Your task to perform on an android device: turn notification dots off Image 0: 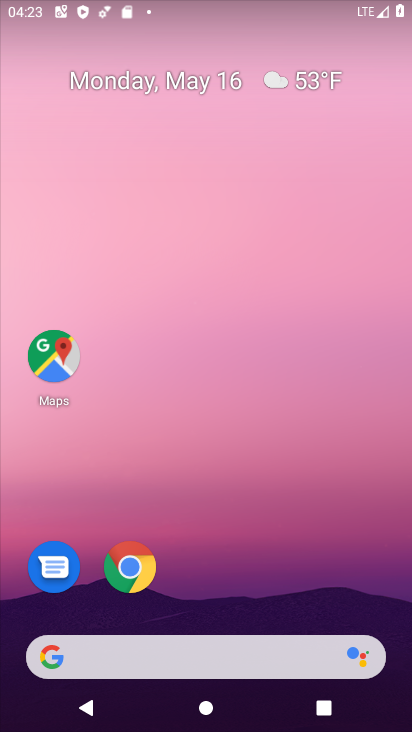
Step 0: drag from (203, 640) to (219, 23)
Your task to perform on an android device: turn notification dots off Image 1: 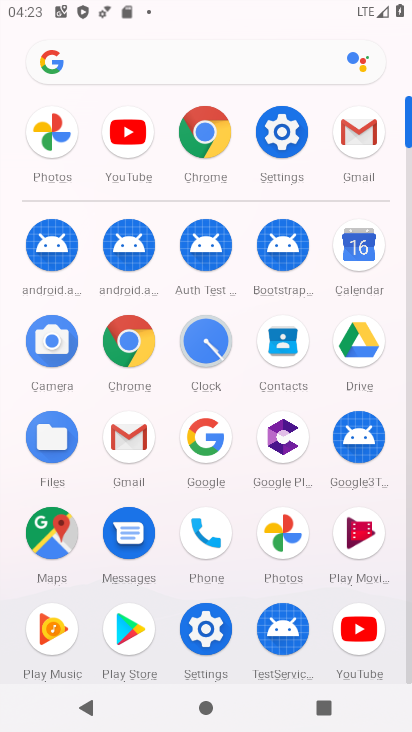
Step 1: click (306, 139)
Your task to perform on an android device: turn notification dots off Image 2: 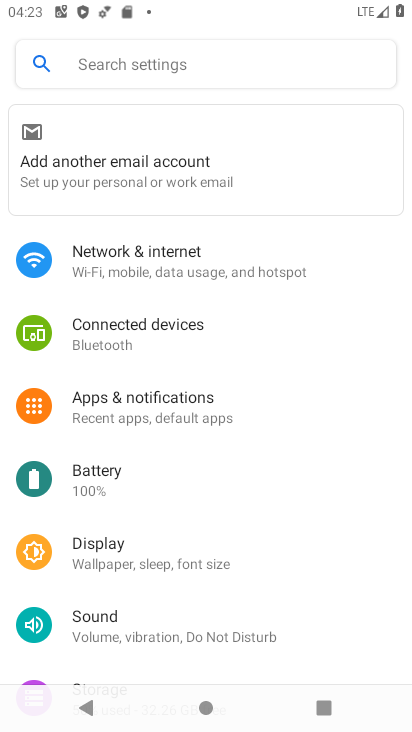
Step 2: click (184, 408)
Your task to perform on an android device: turn notification dots off Image 3: 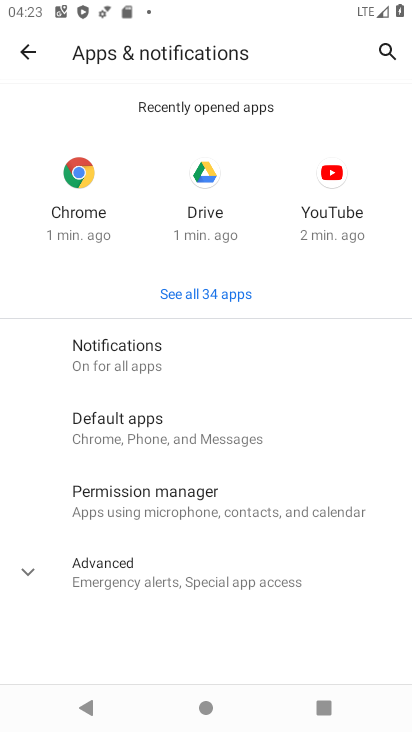
Step 3: click (161, 350)
Your task to perform on an android device: turn notification dots off Image 4: 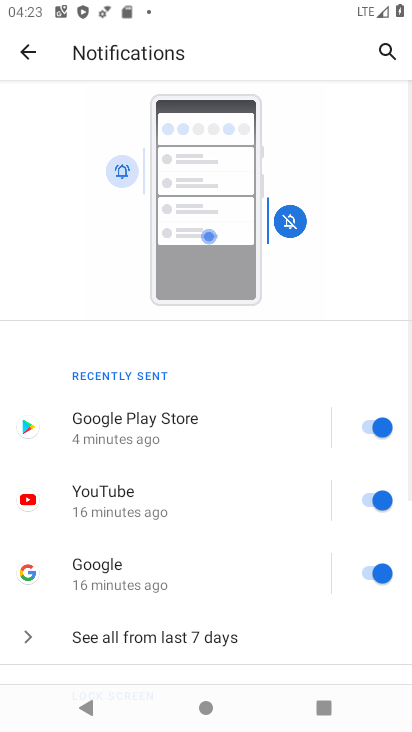
Step 4: drag from (214, 664) to (244, 126)
Your task to perform on an android device: turn notification dots off Image 5: 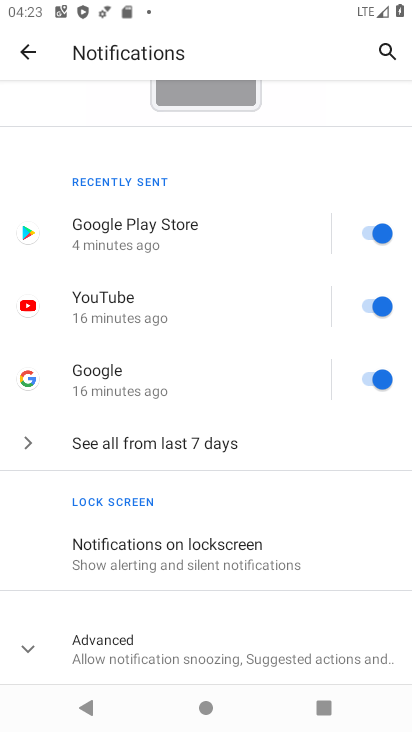
Step 5: click (172, 635)
Your task to perform on an android device: turn notification dots off Image 6: 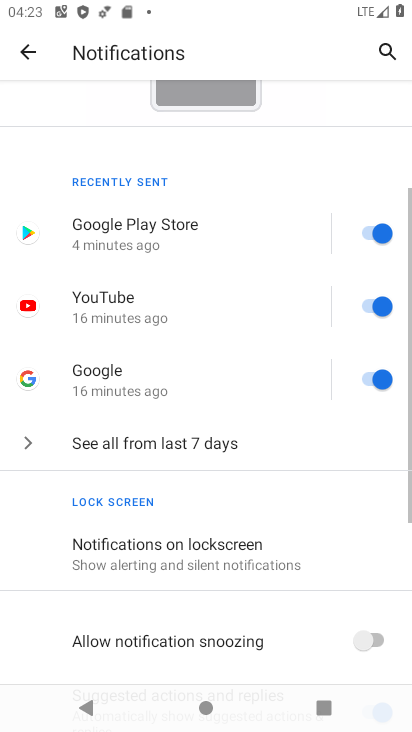
Step 6: task complete